Your task to perform on an android device: turn off notifications settings in the gmail app Image 0: 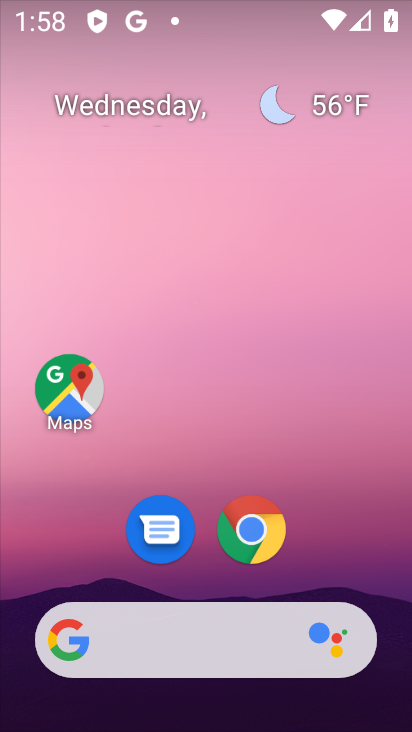
Step 0: drag from (343, 487) to (309, 143)
Your task to perform on an android device: turn off notifications settings in the gmail app Image 1: 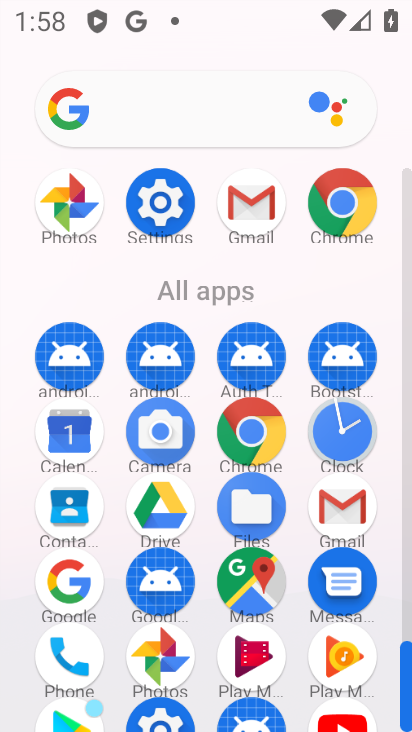
Step 1: click (265, 217)
Your task to perform on an android device: turn off notifications settings in the gmail app Image 2: 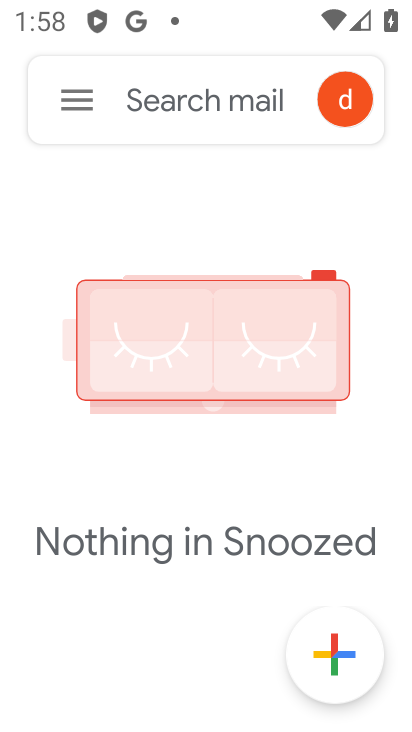
Step 2: click (56, 85)
Your task to perform on an android device: turn off notifications settings in the gmail app Image 3: 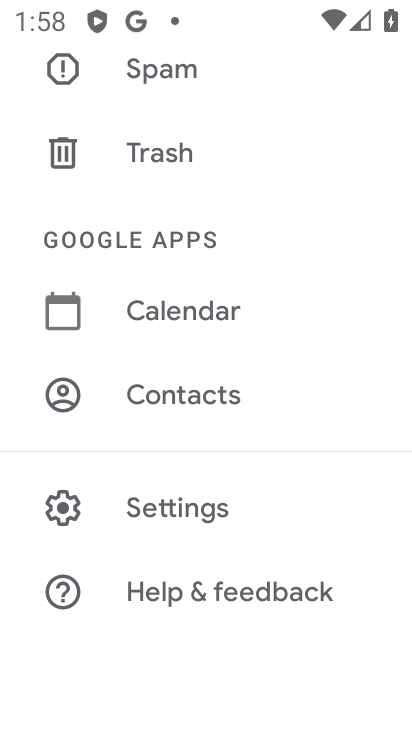
Step 3: click (250, 495)
Your task to perform on an android device: turn off notifications settings in the gmail app Image 4: 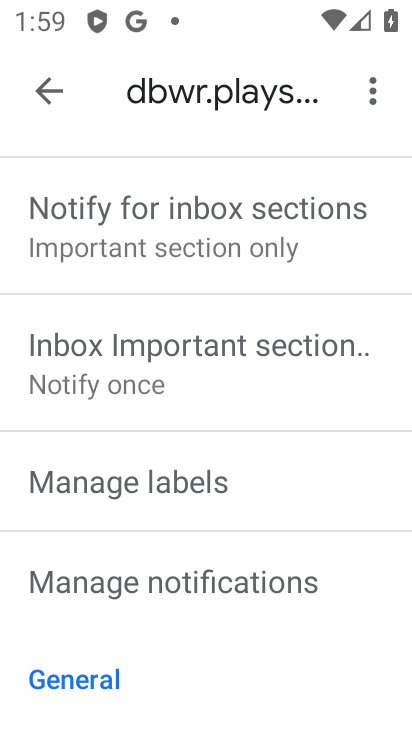
Step 4: drag from (278, 617) to (272, 276)
Your task to perform on an android device: turn off notifications settings in the gmail app Image 5: 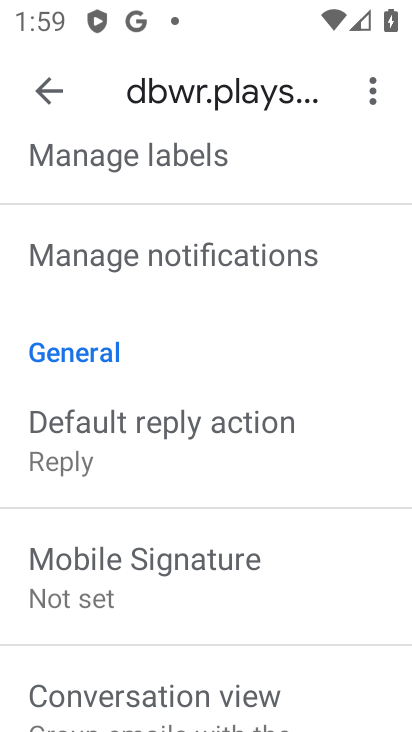
Step 5: click (148, 250)
Your task to perform on an android device: turn off notifications settings in the gmail app Image 6: 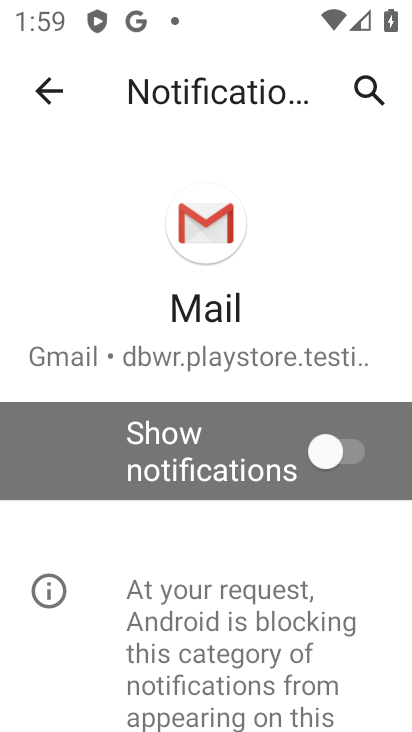
Step 6: task complete